Your task to perform on an android device: What's on my calendar tomorrow? Image 0: 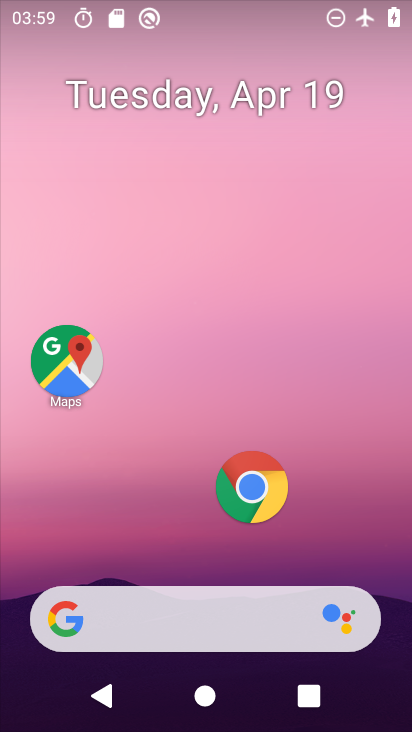
Step 0: drag from (185, 399) to (272, 35)
Your task to perform on an android device: What's on my calendar tomorrow? Image 1: 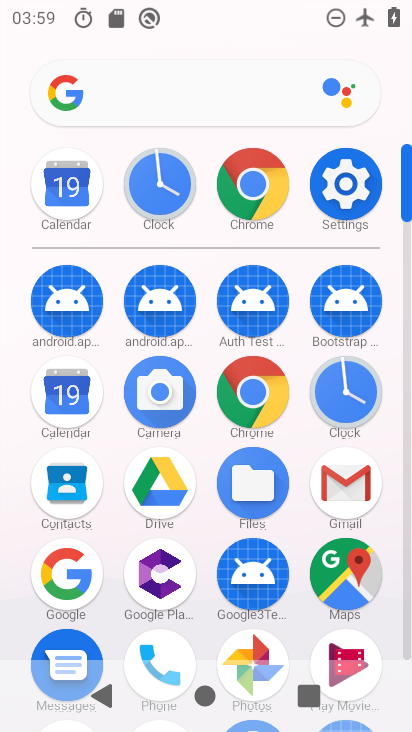
Step 1: click (72, 390)
Your task to perform on an android device: What's on my calendar tomorrow? Image 2: 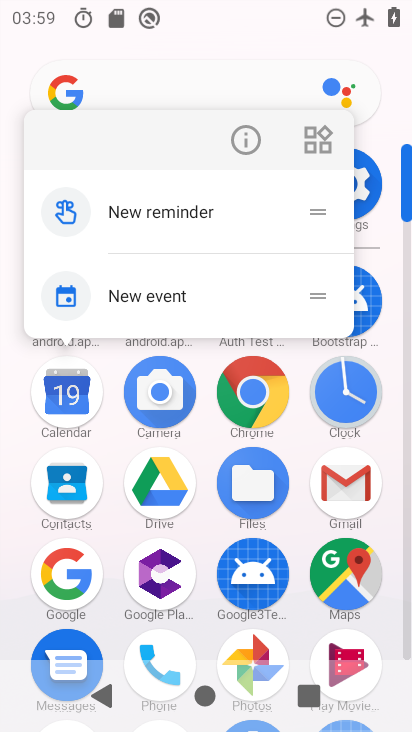
Step 2: click (74, 395)
Your task to perform on an android device: What's on my calendar tomorrow? Image 3: 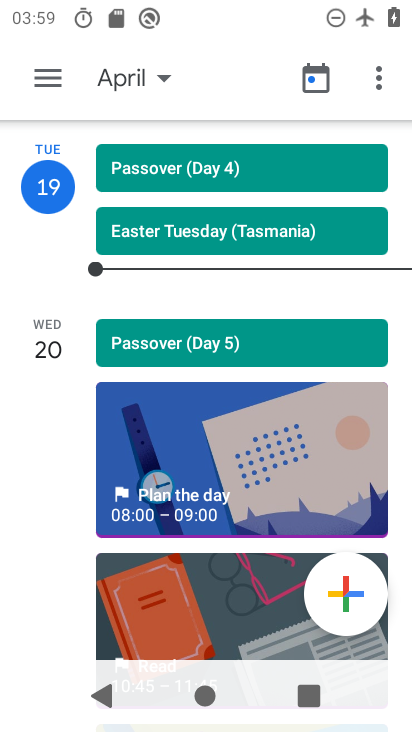
Step 3: drag from (183, 557) to (220, 176)
Your task to perform on an android device: What's on my calendar tomorrow? Image 4: 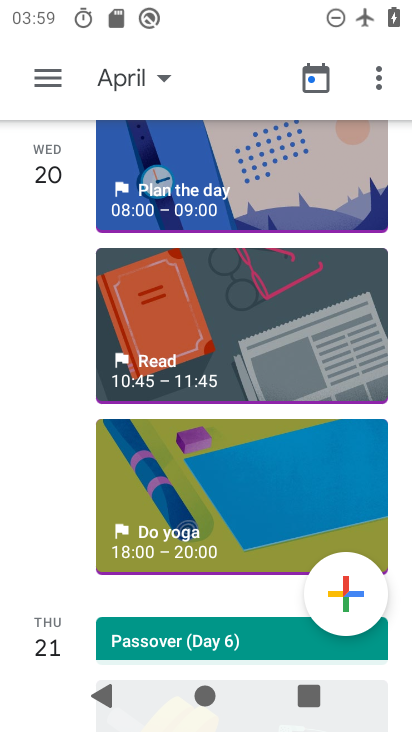
Step 4: click (185, 517)
Your task to perform on an android device: What's on my calendar tomorrow? Image 5: 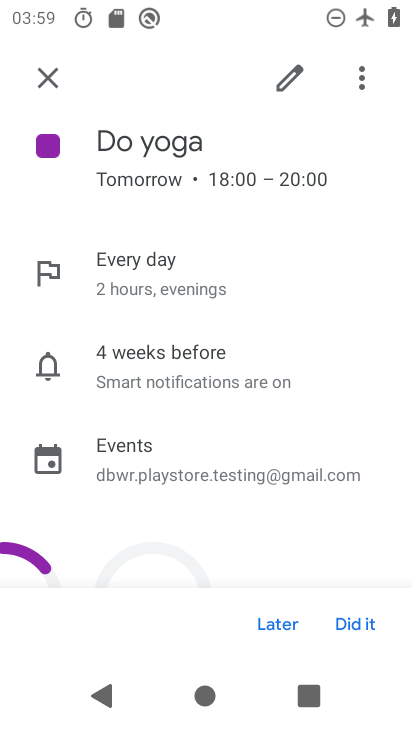
Step 5: task complete